Your task to perform on an android device: see sites visited before in the chrome app Image 0: 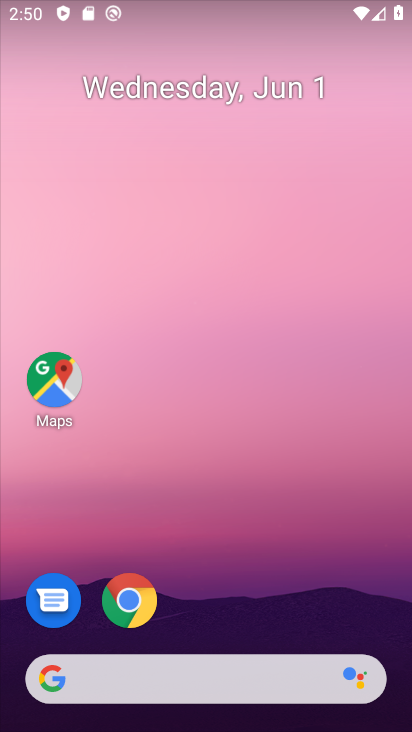
Step 0: drag from (177, 557) to (252, 120)
Your task to perform on an android device: see sites visited before in the chrome app Image 1: 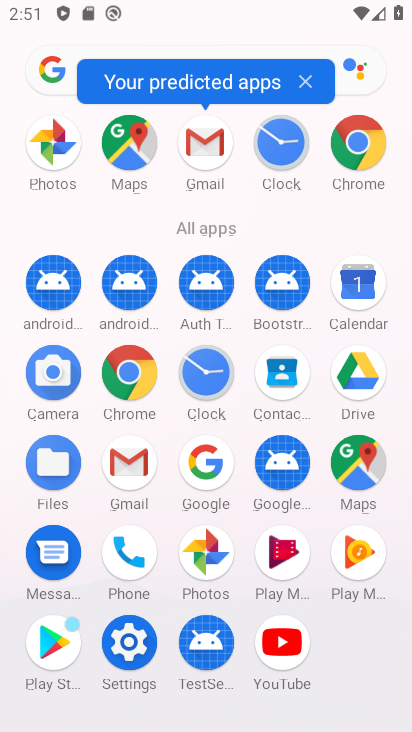
Step 1: click (127, 361)
Your task to perform on an android device: see sites visited before in the chrome app Image 2: 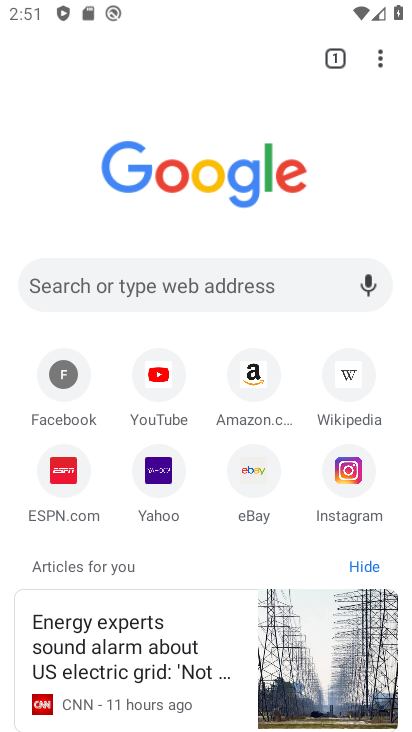
Step 2: task complete